Your task to perform on an android device: toggle translation in the chrome app Image 0: 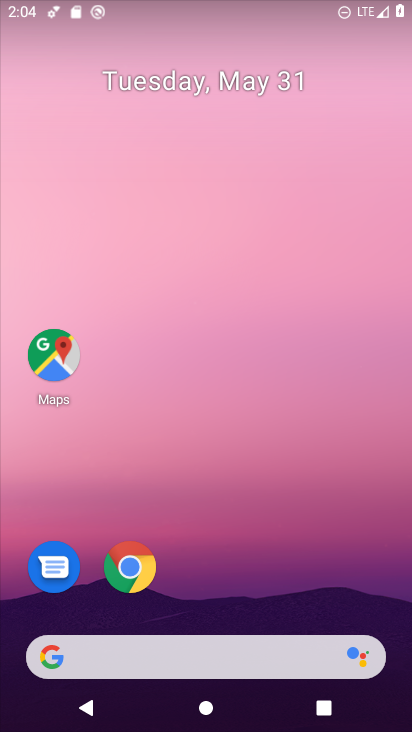
Step 0: click (139, 566)
Your task to perform on an android device: toggle translation in the chrome app Image 1: 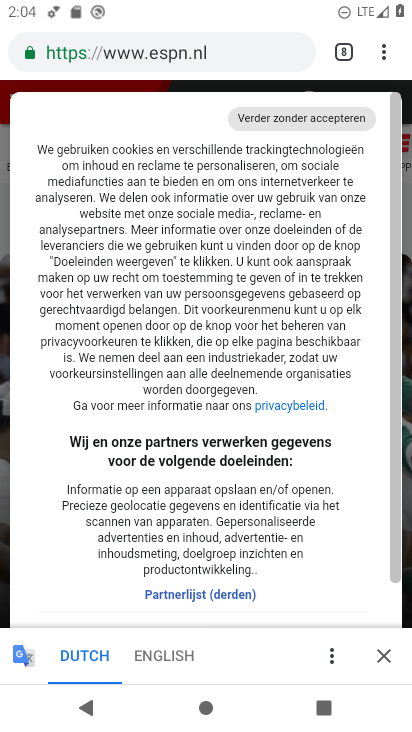
Step 1: click (394, 39)
Your task to perform on an android device: toggle translation in the chrome app Image 2: 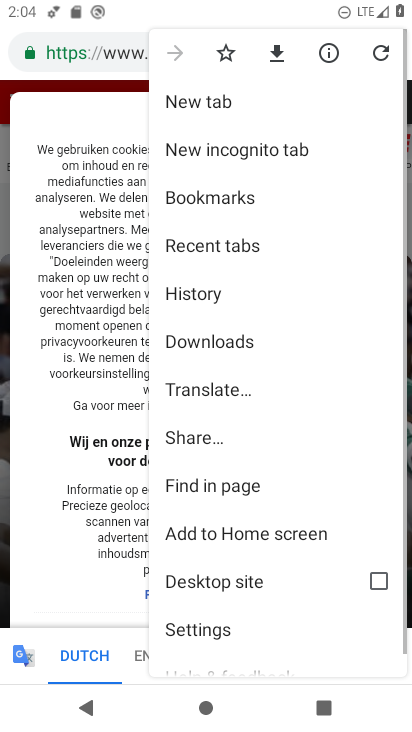
Step 2: drag from (255, 618) to (280, 319)
Your task to perform on an android device: toggle translation in the chrome app Image 3: 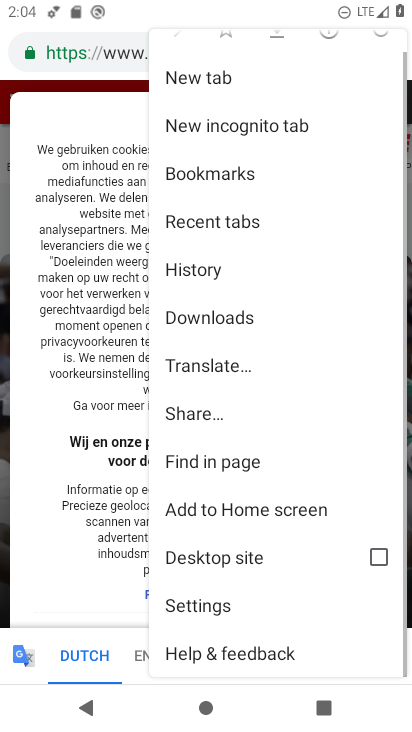
Step 3: click (220, 596)
Your task to perform on an android device: toggle translation in the chrome app Image 4: 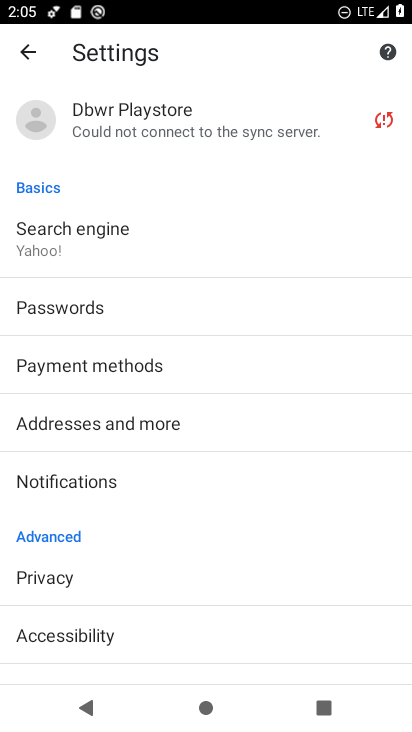
Step 4: drag from (154, 561) to (157, 297)
Your task to perform on an android device: toggle translation in the chrome app Image 5: 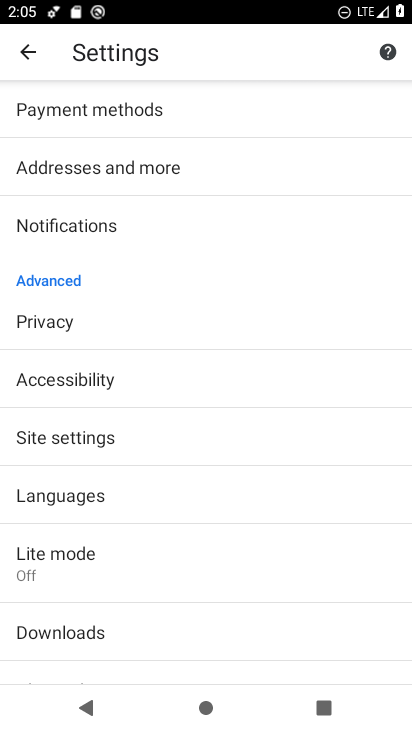
Step 5: click (139, 485)
Your task to perform on an android device: toggle translation in the chrome app Image 6: 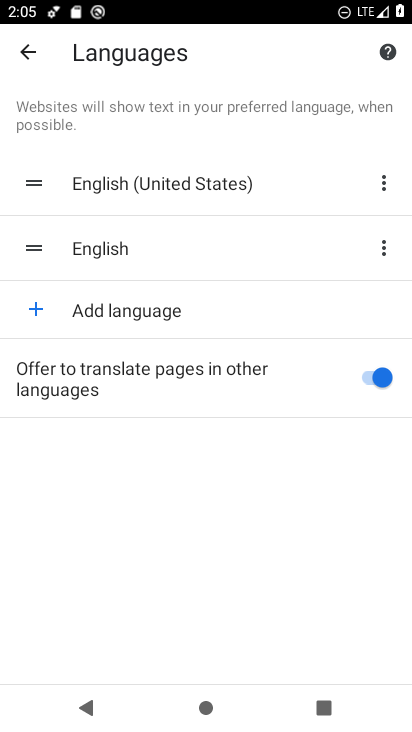
Step 6: click (370, 375)
Your task to perform on an android device: toggle translation in the chrome app Image 7: 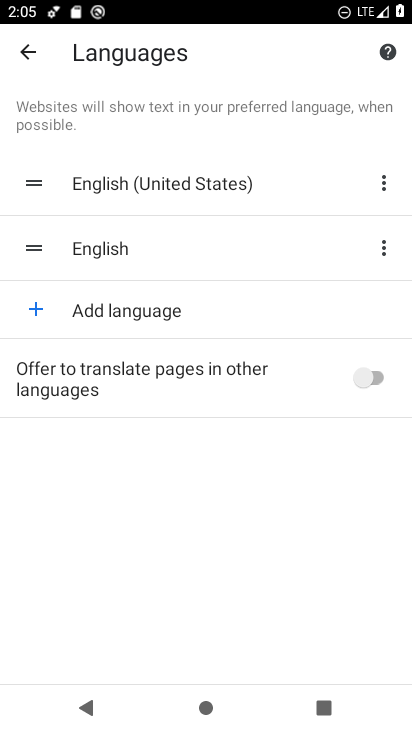
Step 7: task complete